Your task to perform on an android device: add a contact in the contacts app Image 0: 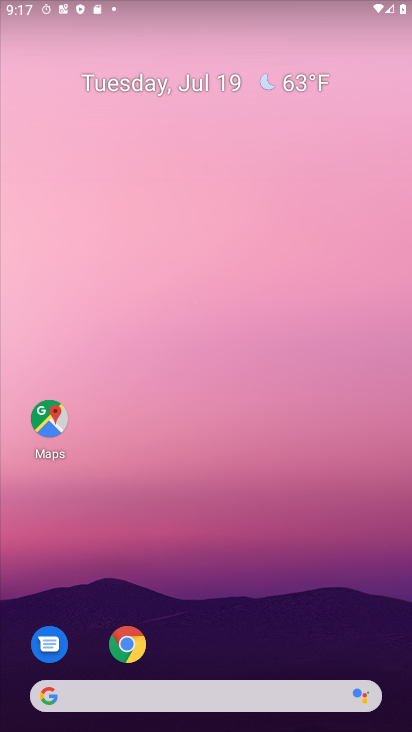
Step 0: drag from (239, 409) to (193, 129)
Your task to perform on an android device: add a contact in the contacts app Image 1: 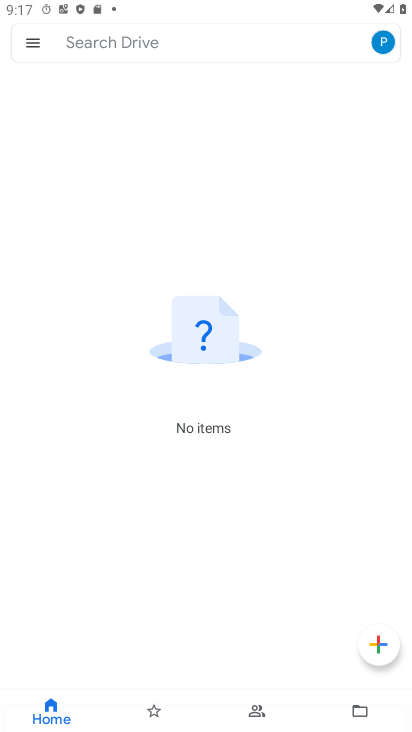
Step 1: press back button
Your task to perform on an android device: add a contact in the contacts app Image 2: 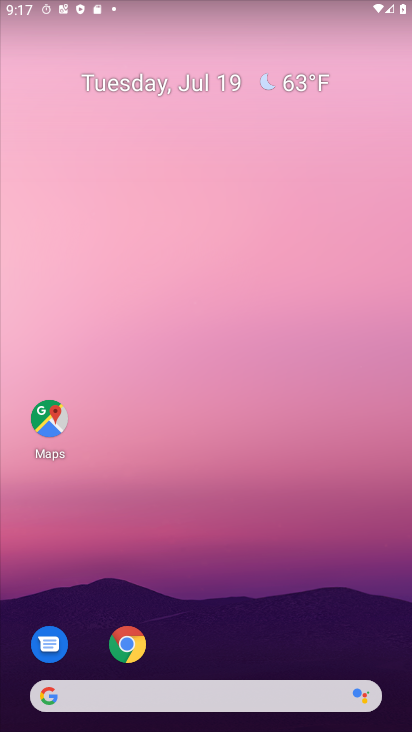
Step 2: drag from (308, 564) to (232, 147)
Your task to perform on an android device: add a contact in the contacts app Image 3: 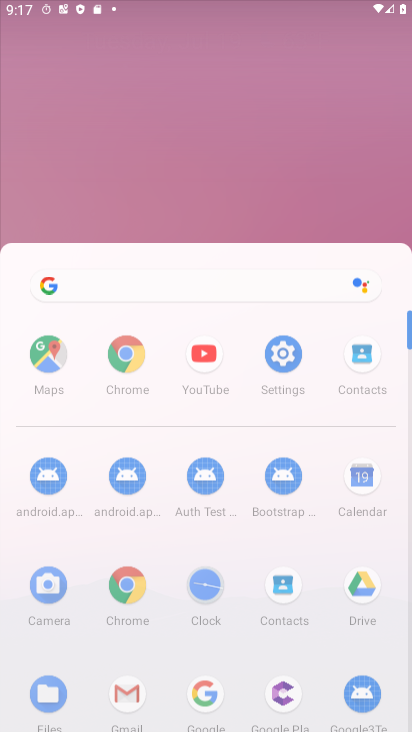
Step 3: drag from (323, 519) to (251, 84)
Your task to perform on an android device: add a contact in the contacts app Image 4: 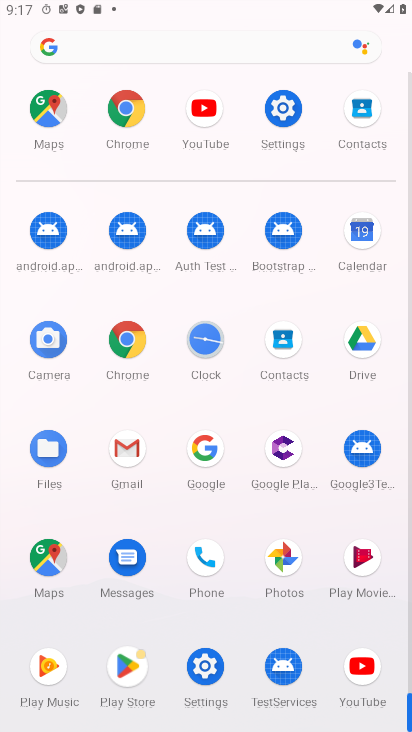
Step 4: click (289, 333)
Your task to perform on an android device: add a contact in the contacts app Image 5: 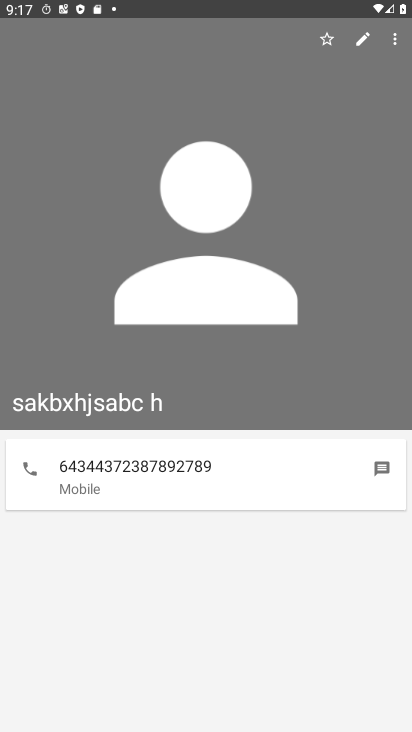
Step 5: press back button
Your task to perform on an android device: add a contact in the contacts app Image 6: 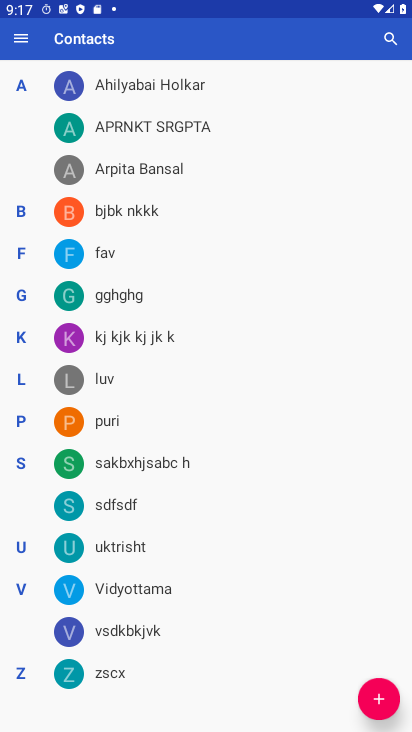
Step 6: press home button
Your task to perform on an android device: add a contact in the contacts app Image 7: 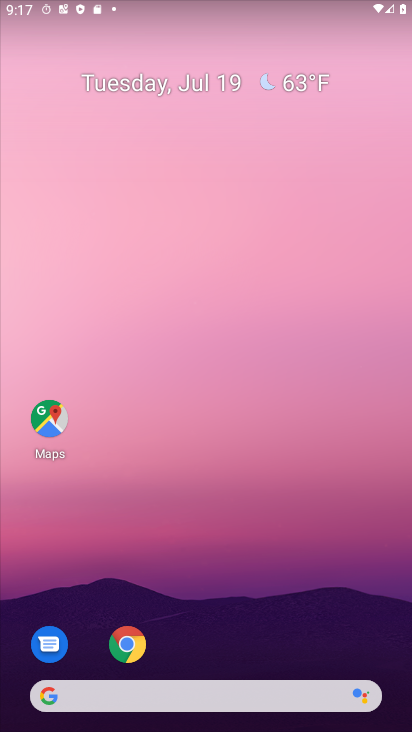
Step 7: drag from (247, 615) to (192, 102)
Your task to perform on an android device: add a contact in the contacts app Image 8: 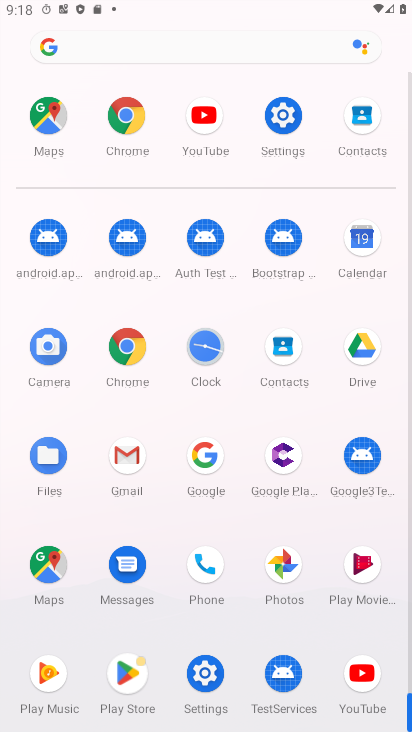
Step 8: click (359, 241)
Your task to perform on an android device: add a contact in the contacts app Image 9: 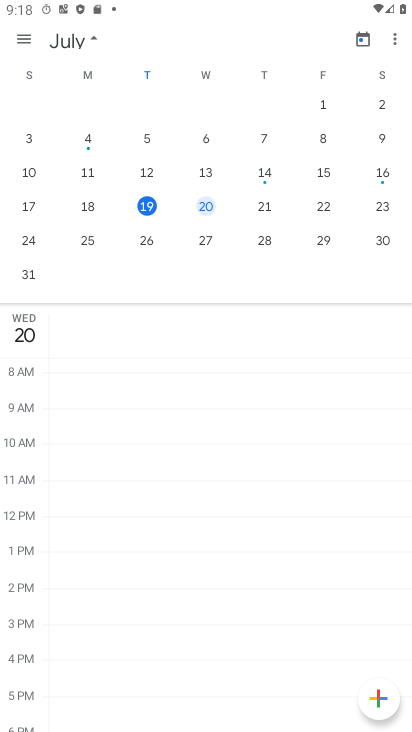
Step 9: press back button
Your task to perform on an android device: add a contact in the contacts app Image 10: 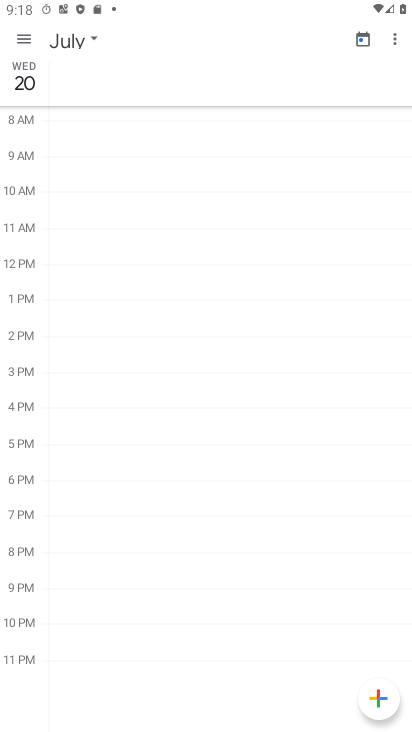
Step 10: press home button
Your task to perform on an android device: add a contact in the contacts app Image 11: 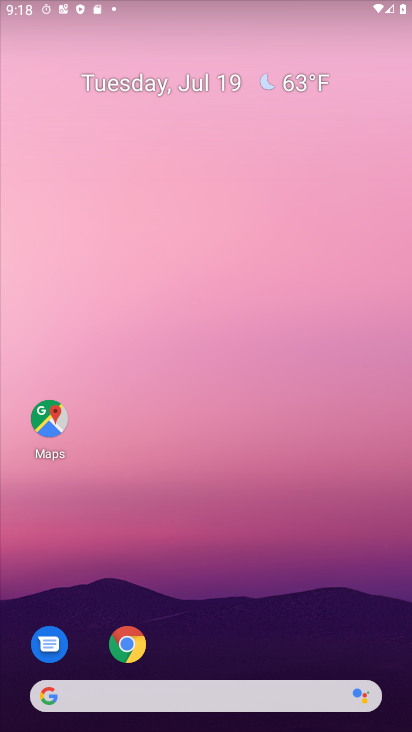
Step 11: drag from (258, 631) to (264, 294)
Your task to perform on an android device: add a contact in the contacts app Image 12: 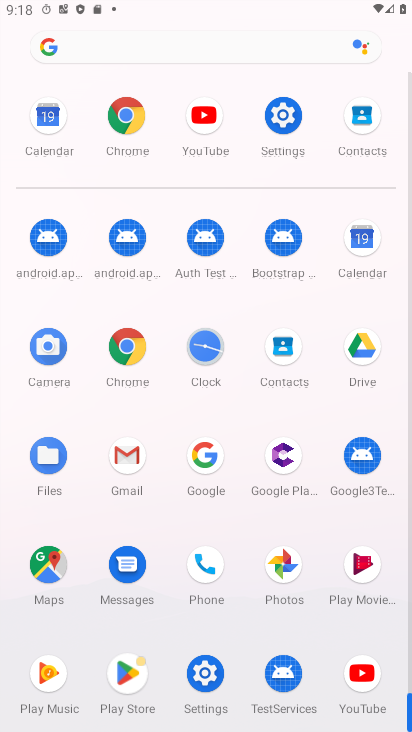
Step 12: click (280, 345)
Your task to perform on an android device: add a contact in the contacts app Image 13: 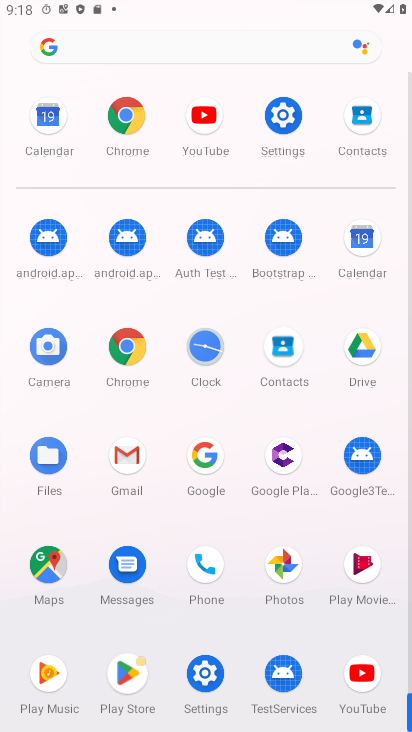
Step 13: click (280, 345)
Your task to perform on an android device: add a contact in the contacts app Image 14: 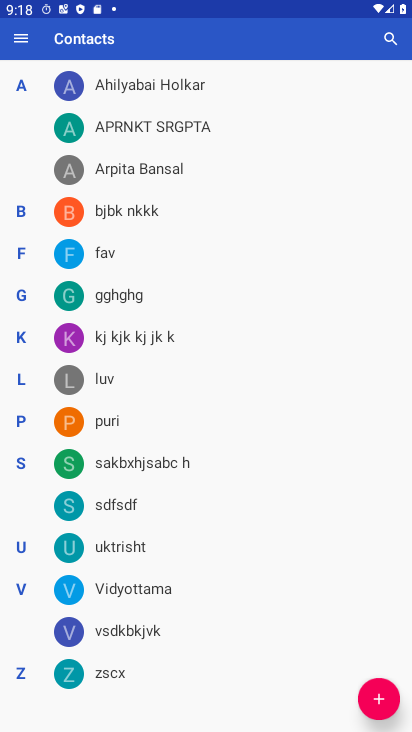
Step 14: task complete